Your task to perform on an android device: Open network settings Image 0: 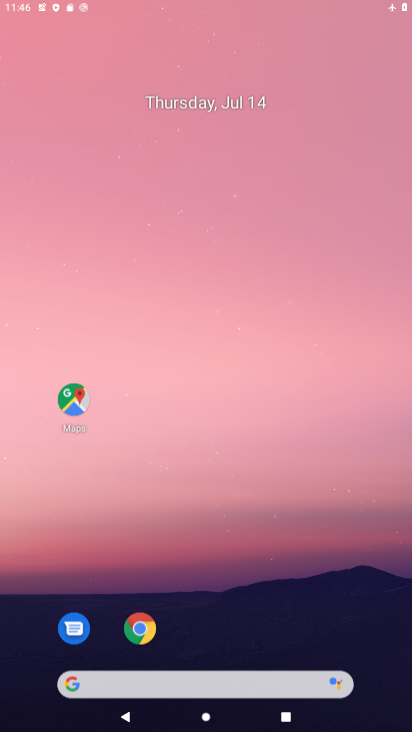
Step 0: press home button
Your task to perform on an android device: Open network settings Image 1: 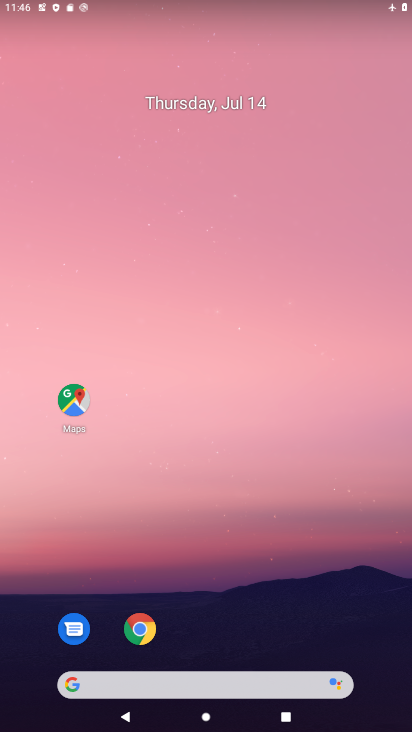
Step 1: drag from (255, 654) to (208, 262)
Your task to perform on an android device: Open network settings Image 2: 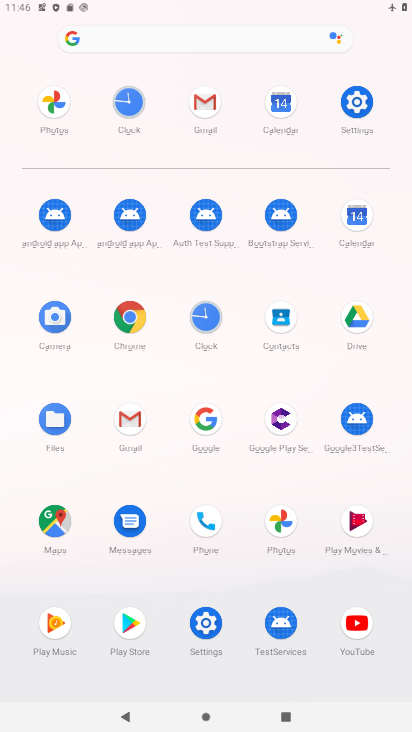
Step 2: click (358, 110)
Your task to perform on an android device: Open network settings Image 3: 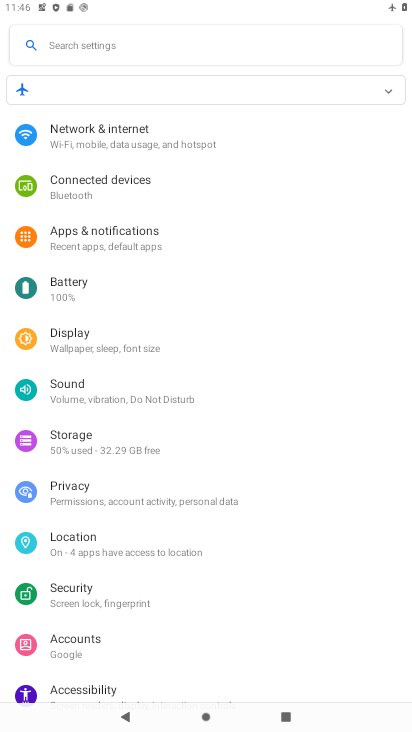
Step 3: click (103, 124)
Your task to perform on an android device: Open network settings Image 4: 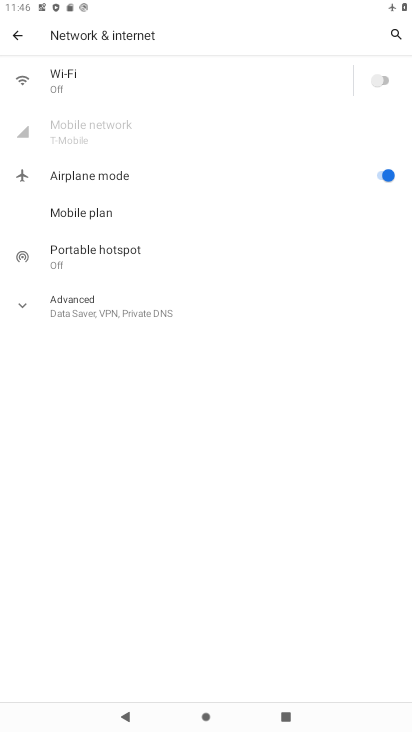
Step 4: task complete